Your task to perform on an android device: allow cookies in the chrome app Image 0: 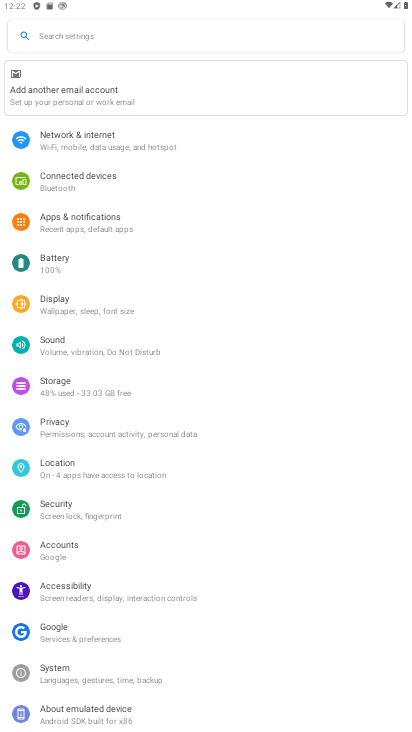
Step 0: press home button
Your task to perform on an android device: allow cookies in the chrome app Image 1: 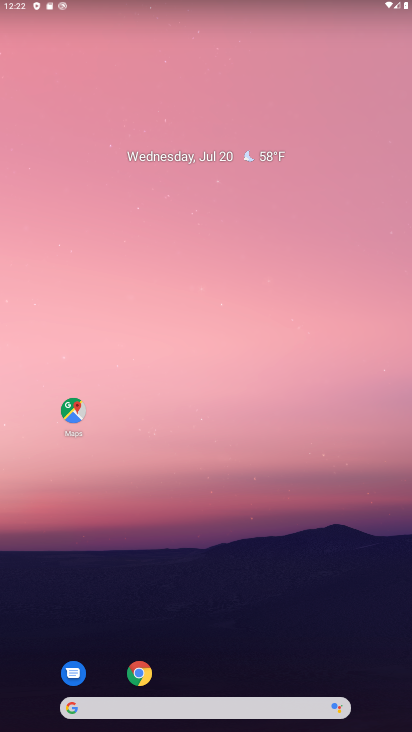
Step 1: click (145, 679)
Your task to perform on an android device: allow cookies in the chrome app Image 2: 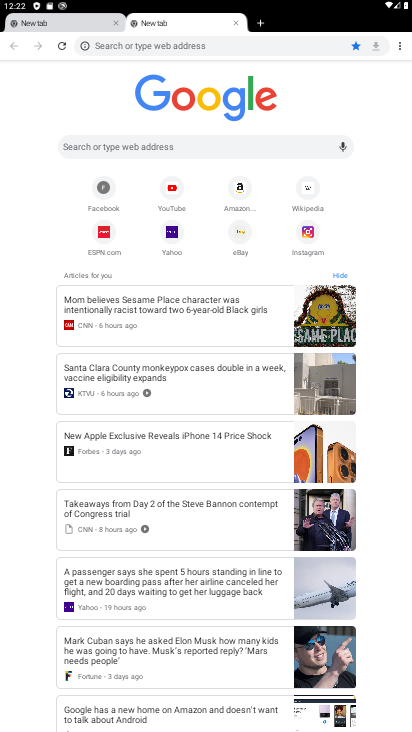
Step 2: click (397, 44)
Your task to perform on an android device: allow cookies in the chrome app Image 3: 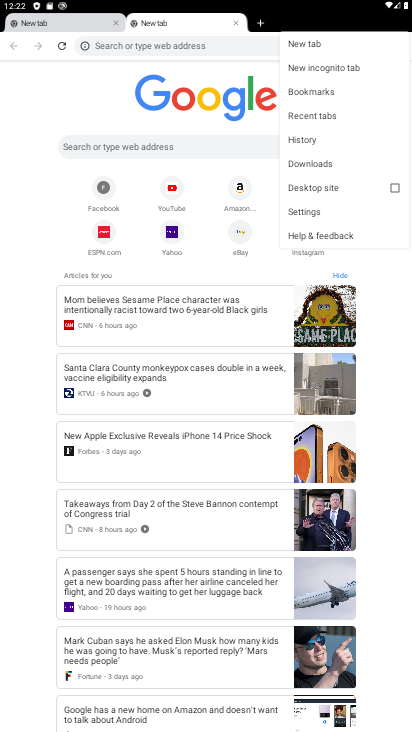
Step 3: click (304, 209)
Your task to perform on an android device: allow cookies in the chrome app Image 4: 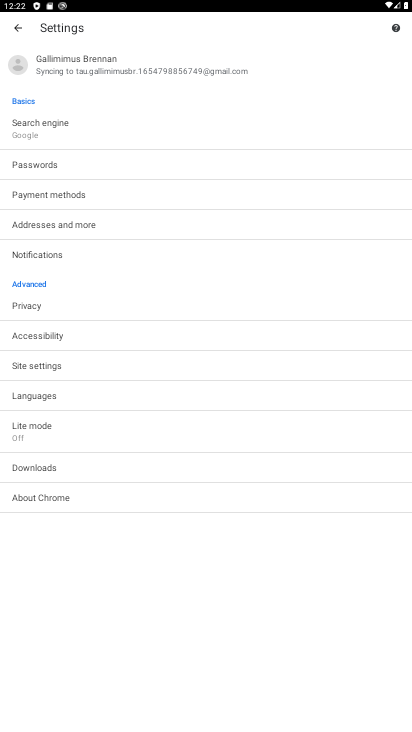
Step 4: click (48, 367)
Your task to perform on an android device: allow cookies in the chrome app Image 5: 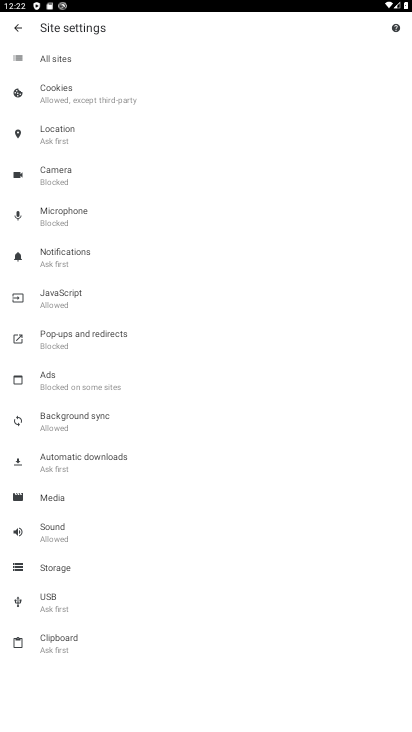
Step 5: click (69, 93)
Your task to perform on an android device: allow cookies in the chrome app Image 6: 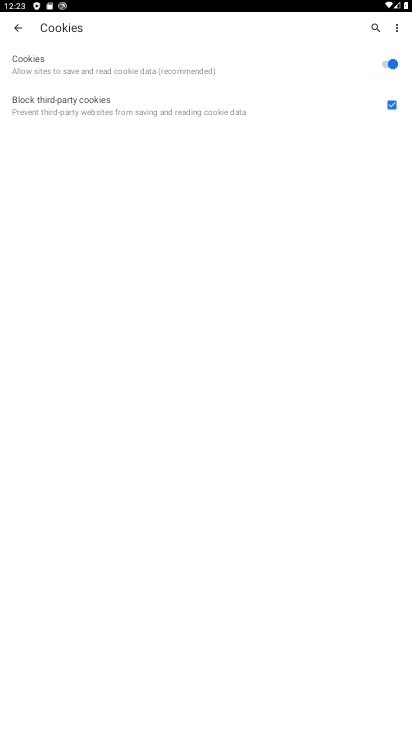
Step 6: task complete